Your task to perform on an android device: Go to Reddit.com Image 0: 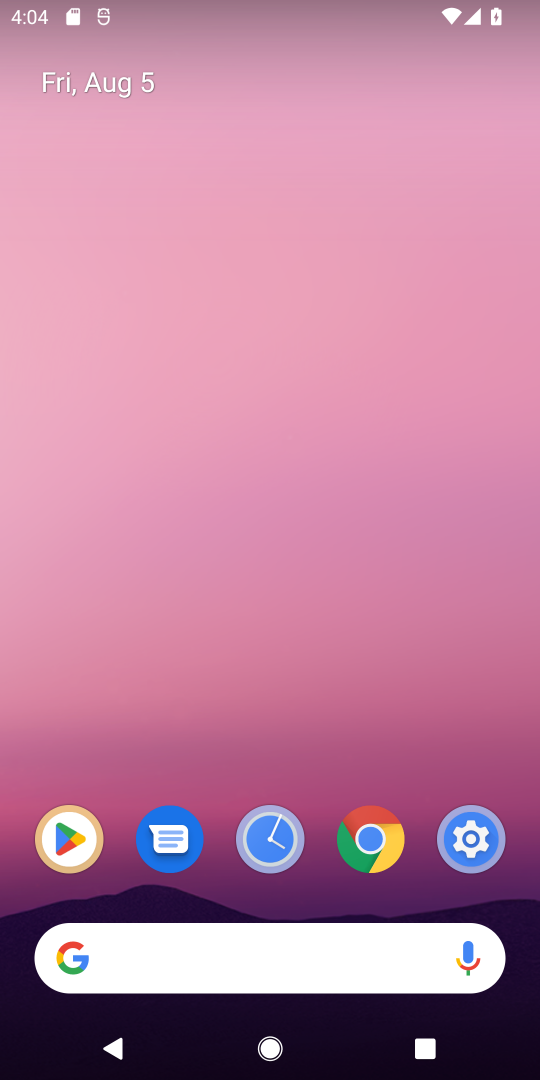
Step 0: click (357, 828)
Your task to perform on an android device: Go to Reddit.com Image 1: 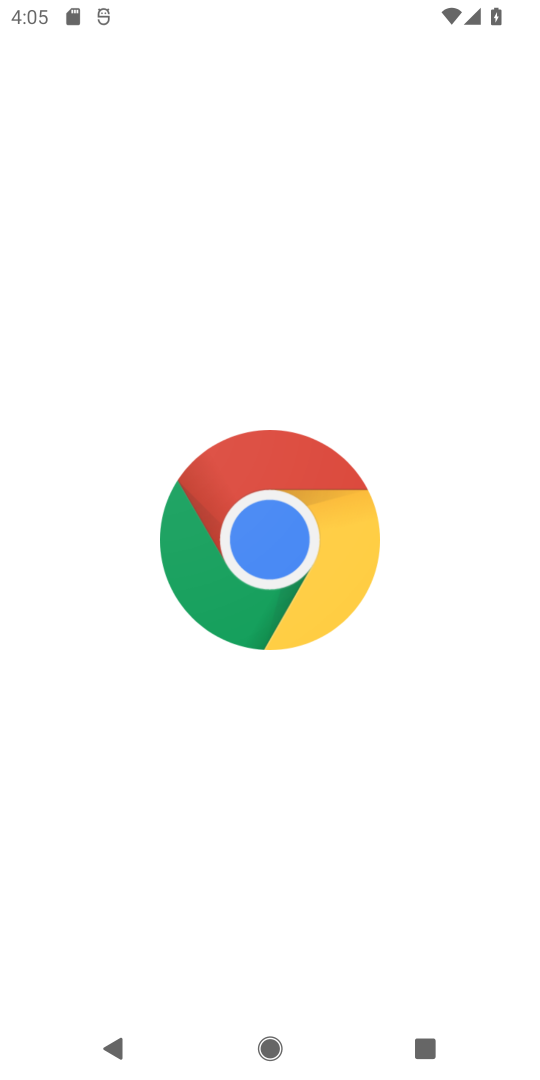
Step 1: press home button
Your task to perform on an android device: Go to Reddit.com Image 2: 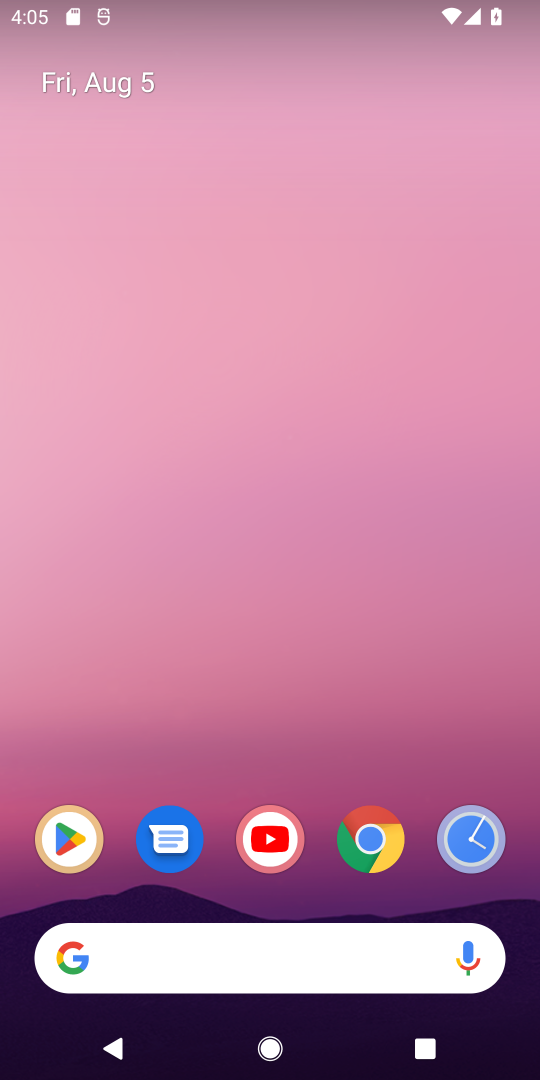
Step 2: click (396, 841)
Your task to perform on an android device: Go to Reddit.com Image 3: 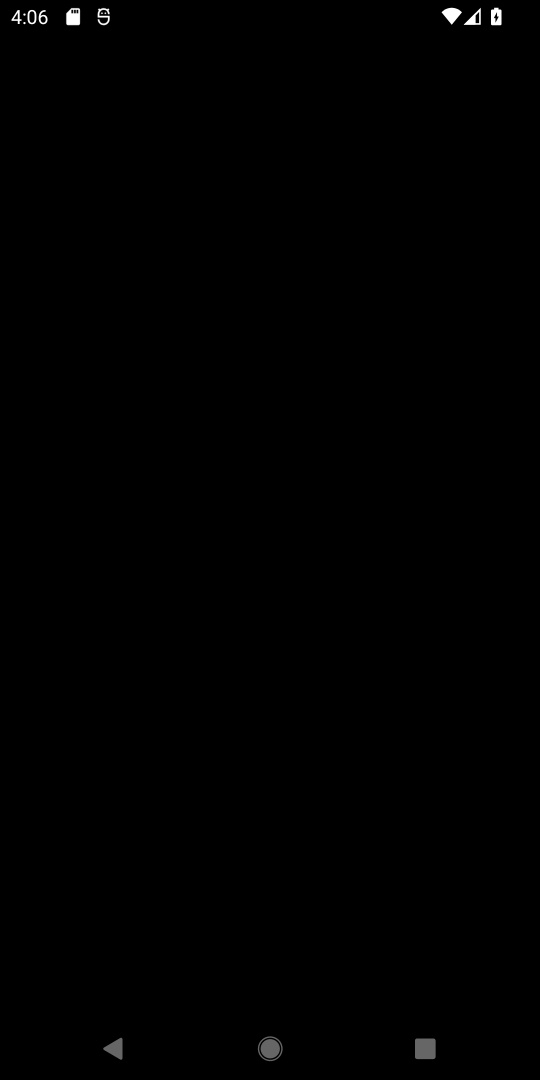
Step 3: task complete